Your task to perform on an android device: change the clock display to digital Image 0: 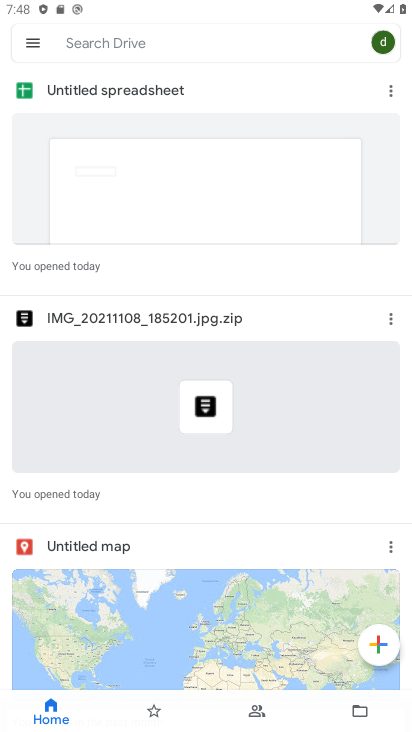
Step 0: press home button
Your task to perform on an android device: change the clock display to digital Image 1: 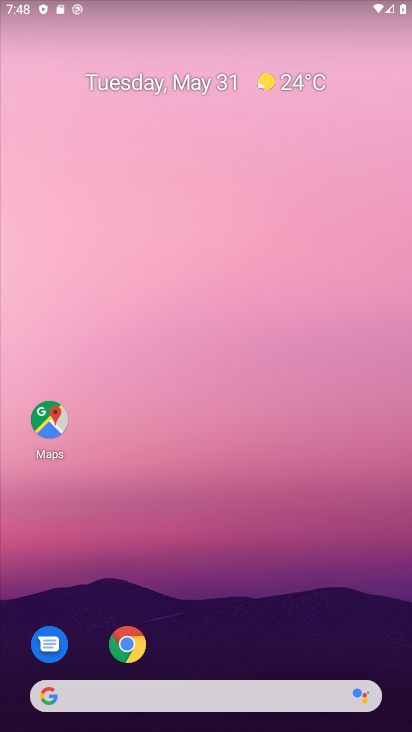
Step 1: drag from (314, 607) to (309, 183)
Your task to perform on an android device: change the clock display to digital Image 2: 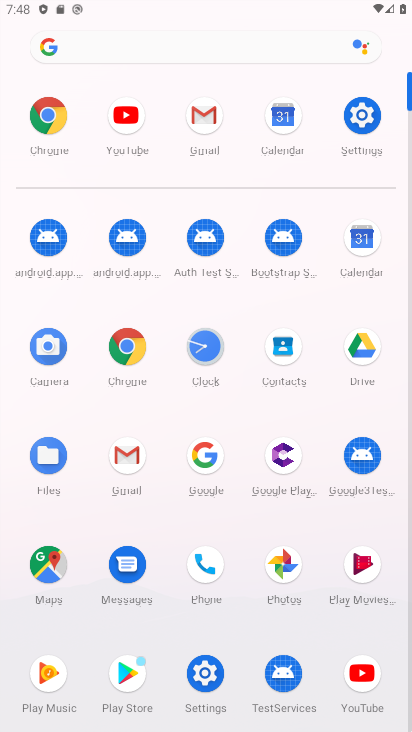
Step 2: click (211, 361)
Your task to perform on an android device: change the clock display to digital Image 3: 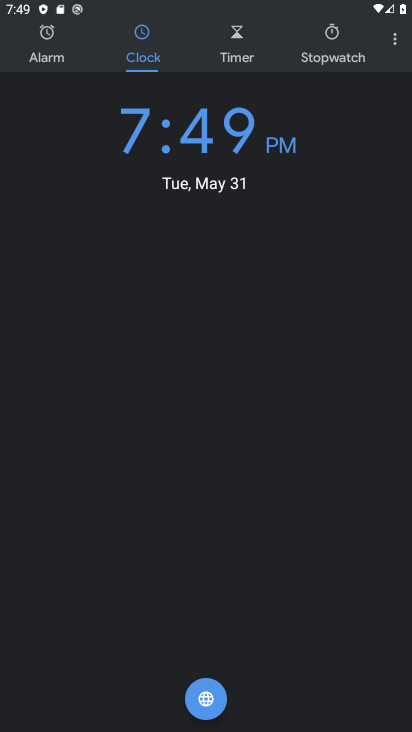
Step 3: click (390, 48)
Your task to perform on an android device: change the clock display to digital Image 4: 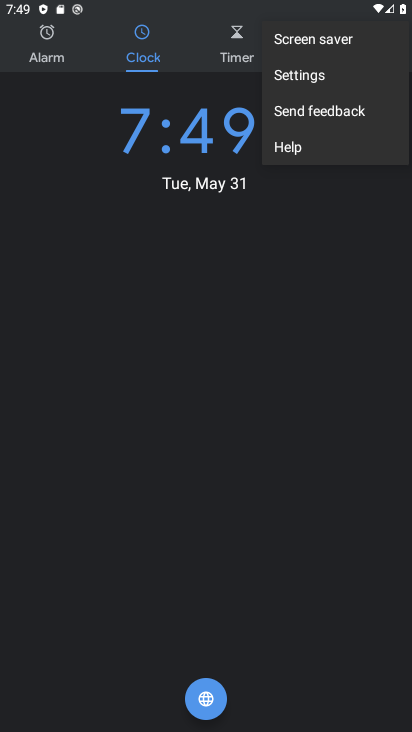
Step 4: click (329, 87)
Your task to perform on an android device: change the clock display to digital Image 5: 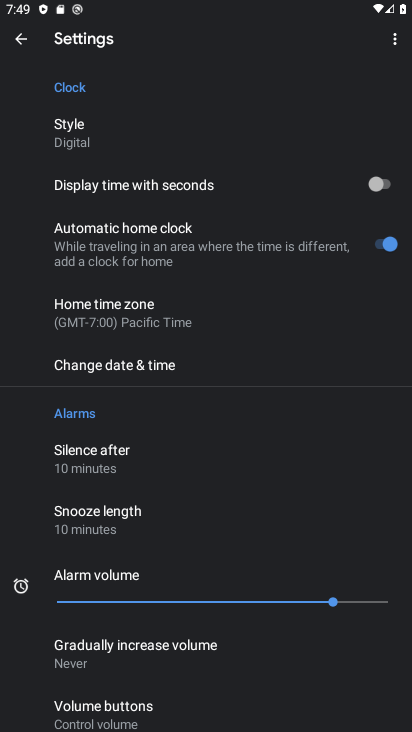
Step 5: task complete